Your task to perform on an android device: turn off wifi Image 0: 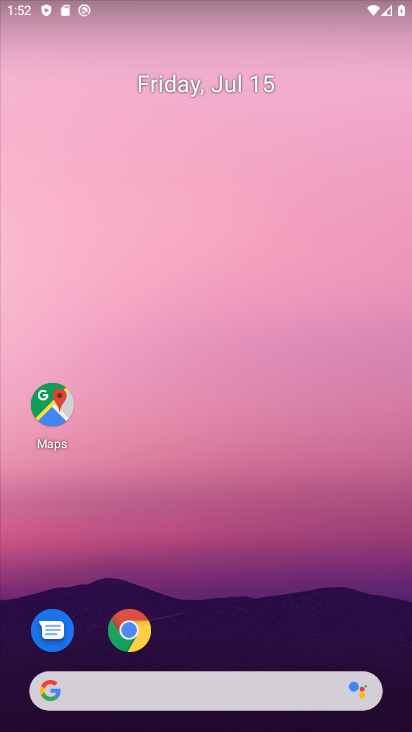
Step 0: press home button
Your task to perform on an android device: turn off wifi Image 1: 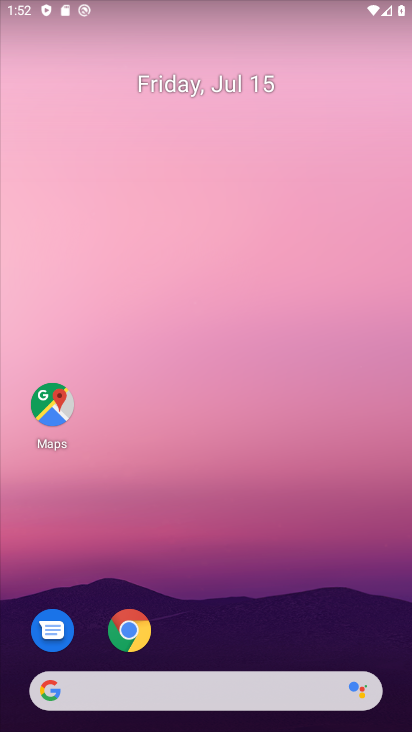
Step 1: drag from (269, 609) to (331, 3)
Your task to perform on an android device: turn off wifi Image 2: 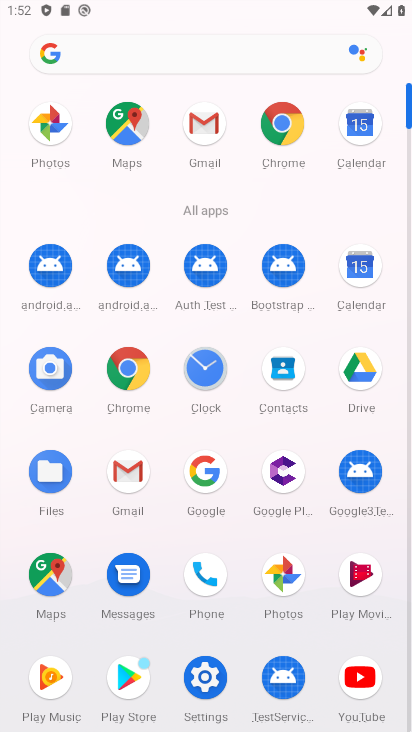
Step 2: click (210, 666)
Your task to perform on an android device: turn off wifi Image 3: 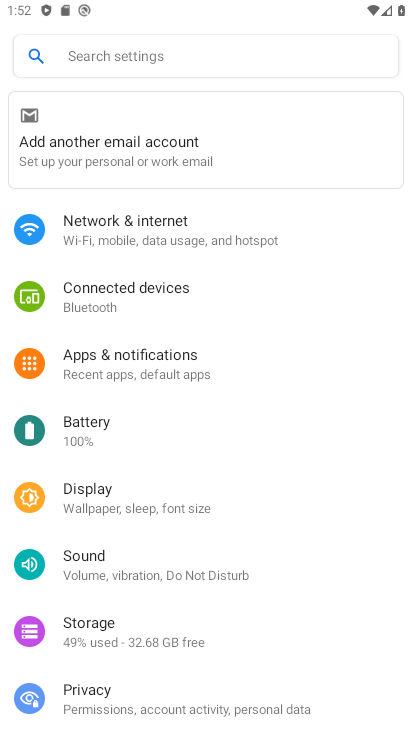
Step 3: click (110, 223)
Your task to perform on an android device: turn off wifi Image 4: 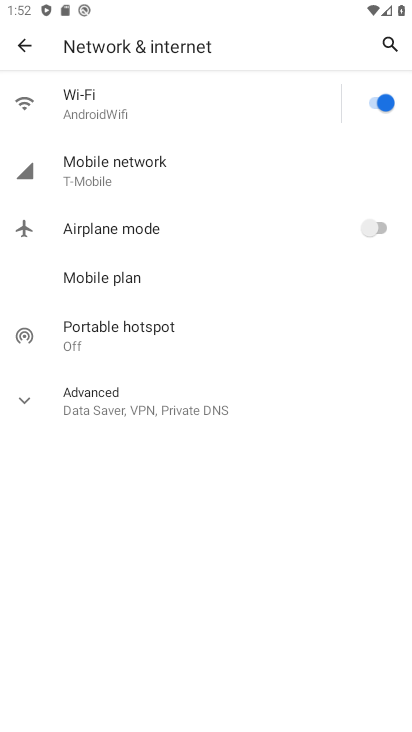
Step 4: click (380, 97)
Your task to perform on an android device: turn off wifi Image 5: 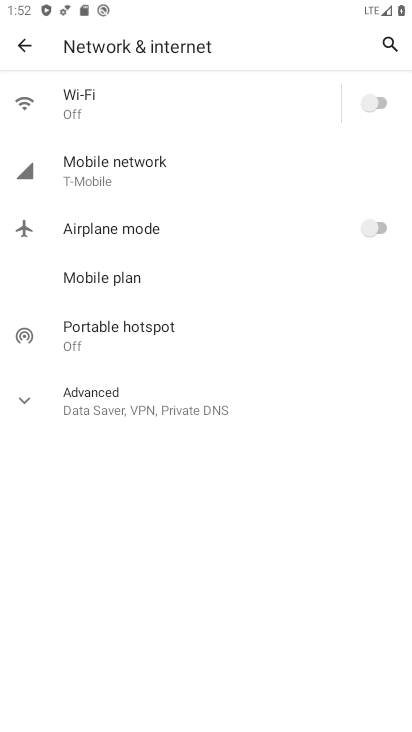
Step 5: task complete